Your task to perform on an android device: Show me the alarms in the clock app Image 0: 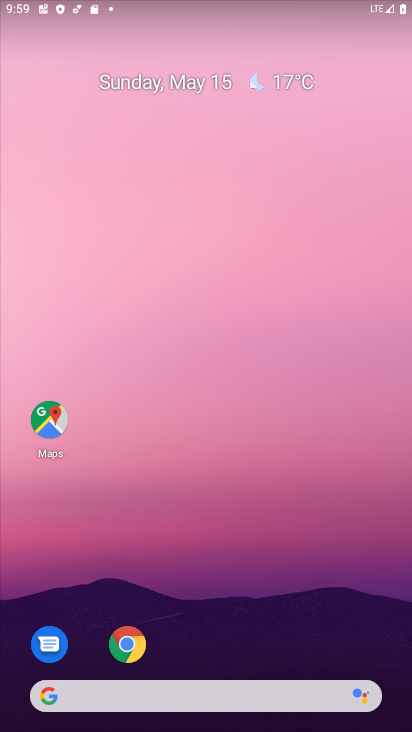
Step 0: drag from (241, 697) to (240, 221)
Your task to perform on an android device: Show me the alarms in the clock app Image 1: 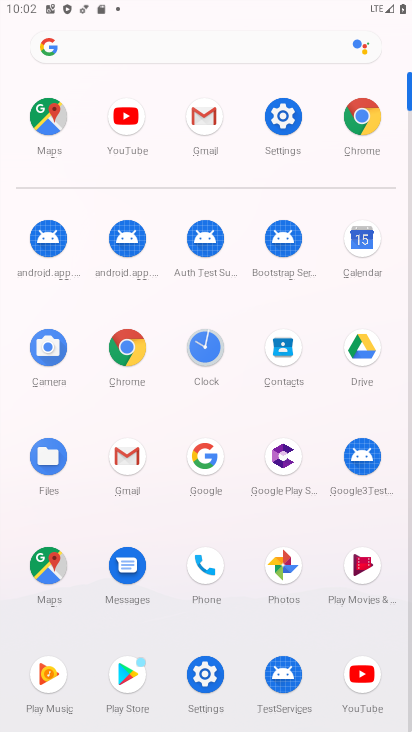
Step 1: click (203, 357)
Your task to perform on an android device: Show me the alarms in the clock app Image 2: 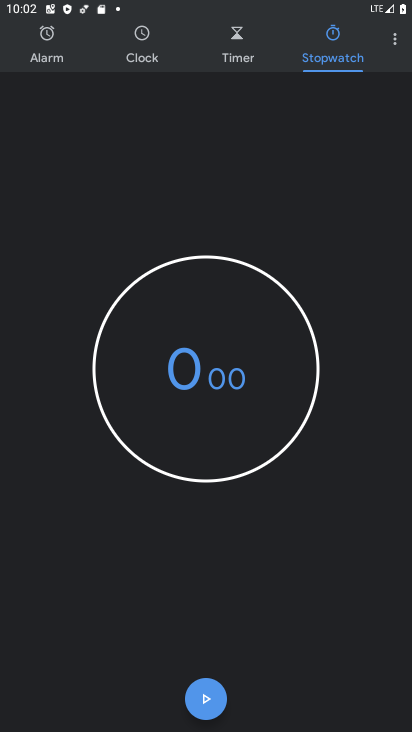
Step 2: click (58, 45)
Your task to perform on an android device: Show me the alarms in the clock app Image 3: 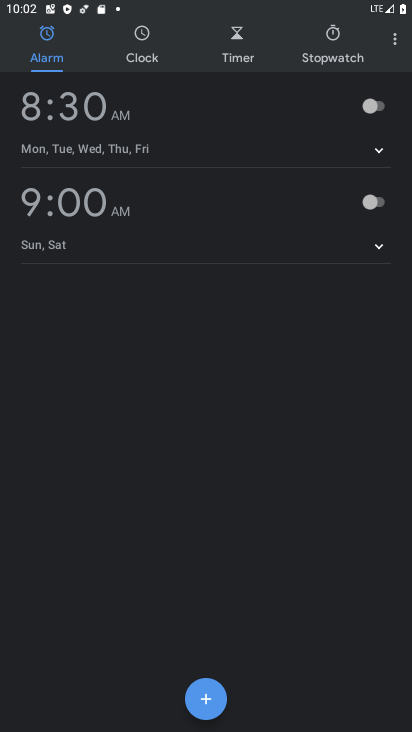
Step 3: task complete